Your task to perform on an android device: Go to battery settings Image 0: 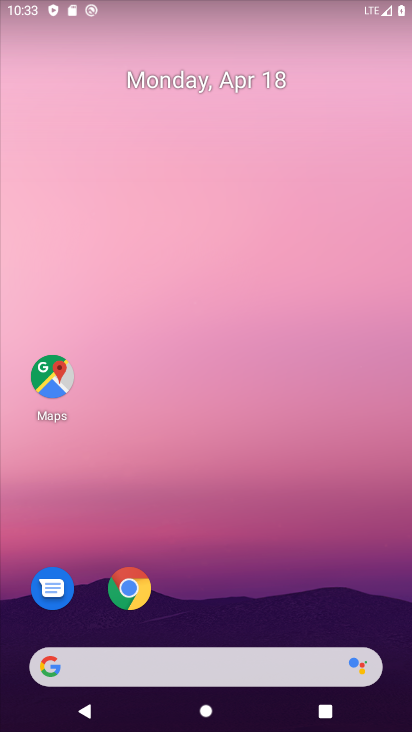
Step 0: drag from (360, 597) to (290, 3)
Your task to perform on an android device: Go to battery settings Image 1: 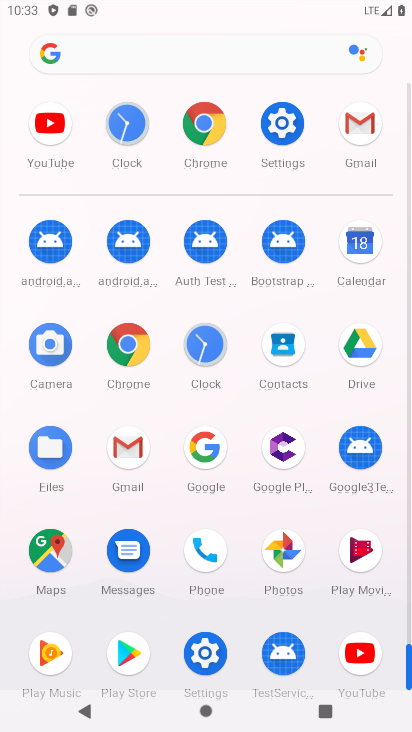
Step 1: click (206, 653)
Your task to perform on an android device: Go to battery settings Image 2: 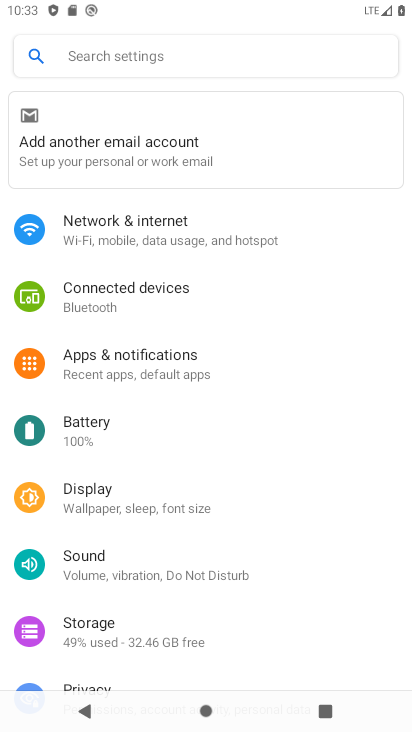
Step 2: click (83, 425)
Your task to perform on an android device: Go to battery settings Image 3: 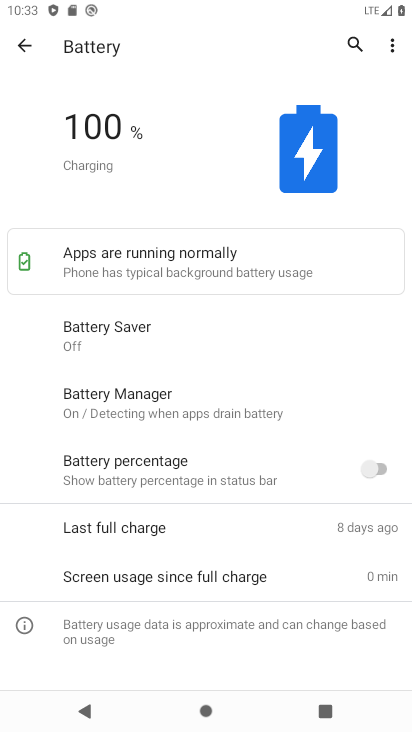
Step 3: task complete